Your task to perform on an android device: snooze an email in the gmail app Image 0: 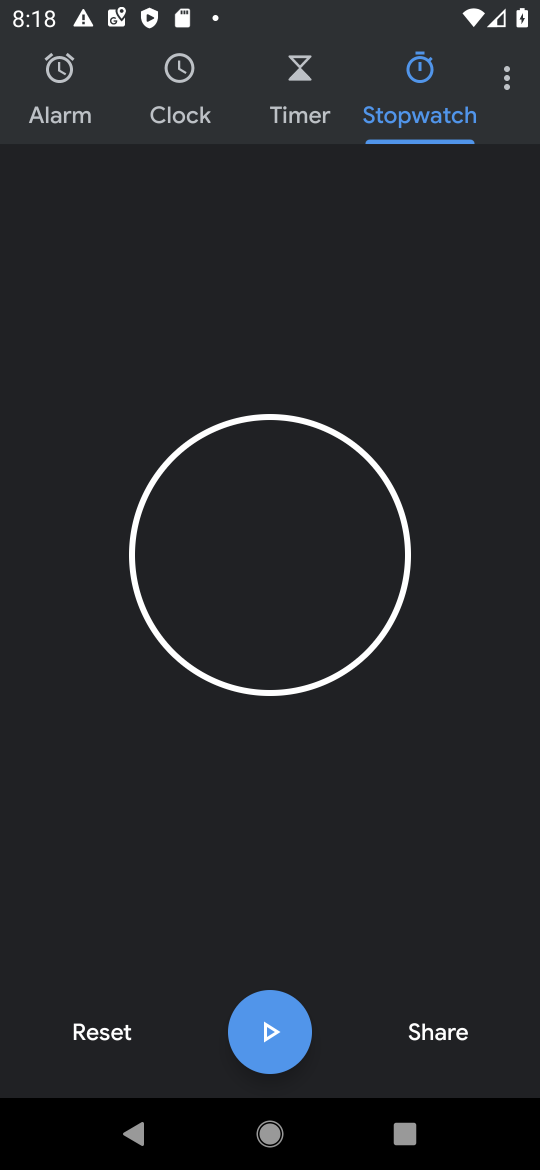
Step 0: press home button
Your task to perform on an android device: snooze an email in the gmail app Image 1: 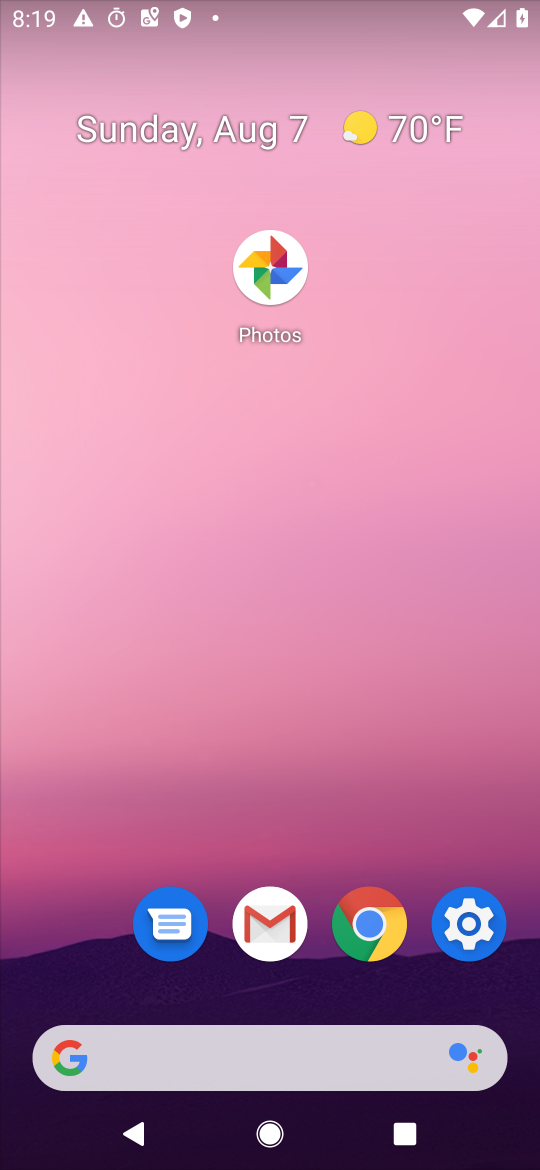
Step 1: drag from (372, 725) to (457, 264)
Your task to perform on an android device: snooze an email in the gmail app Image 2: 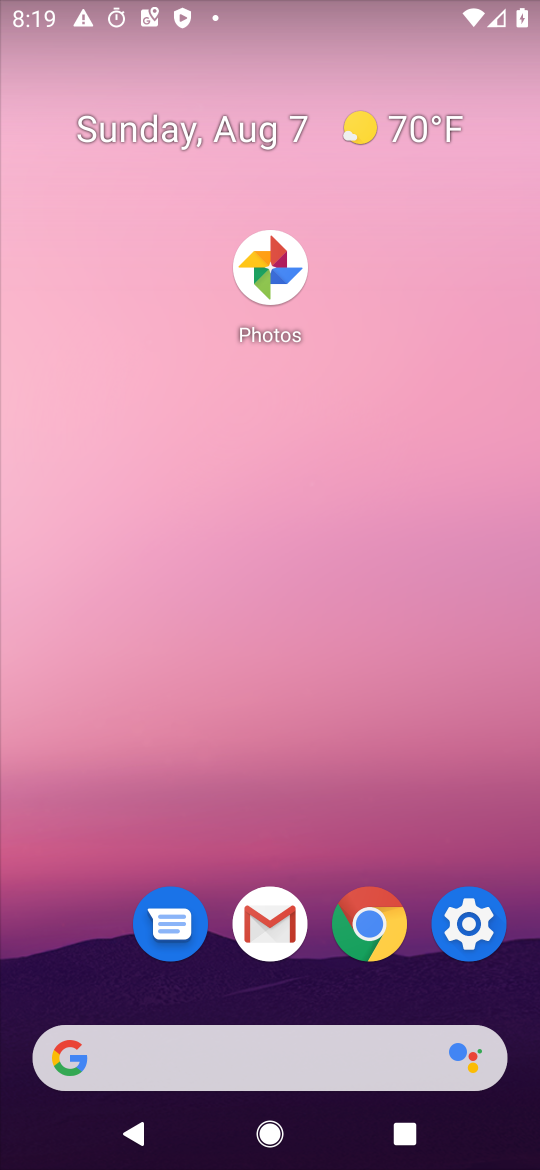
Step 2: click (257, 909)
Your task to perform on an android device: snooze an email in the gmail app Image 3: 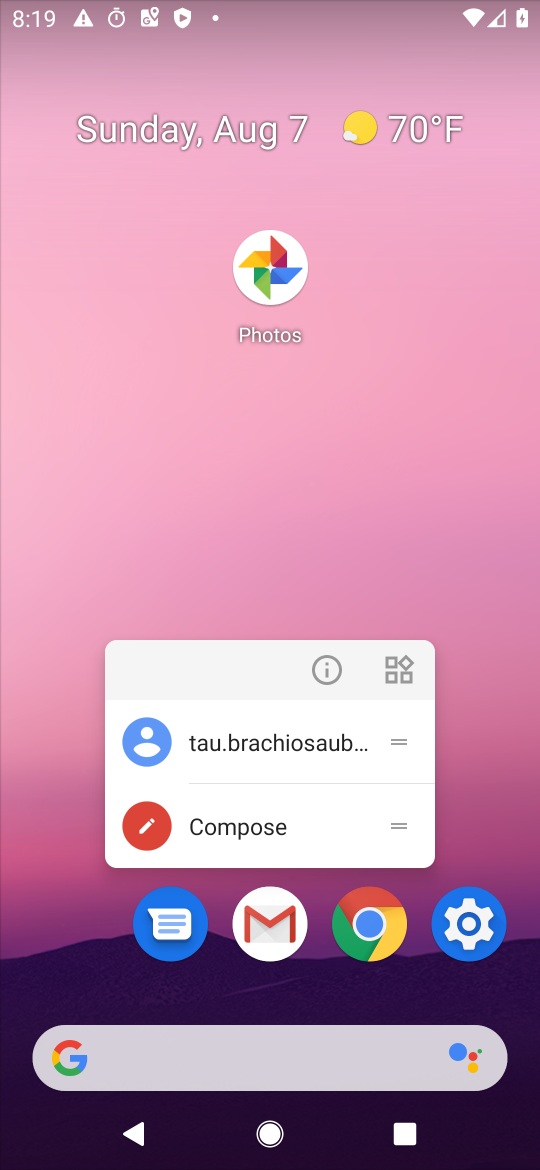
Step 3: click (267, 934)
Your task to perform on an android device: snooze an email in the gmail app Image 4: 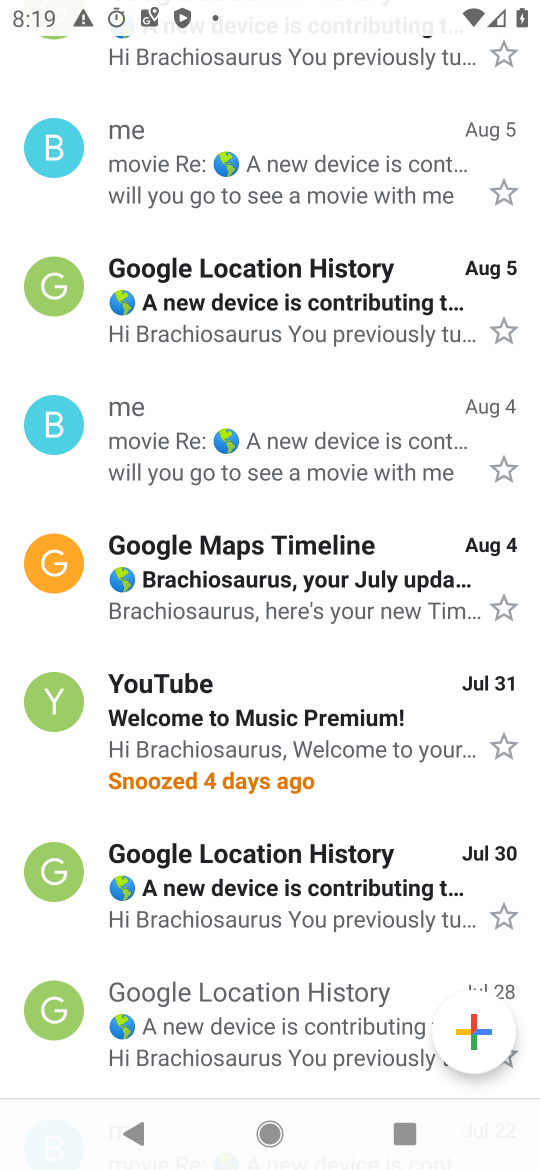
Step 4: drag from (196, 319) to (242, 698)
Your task to perform on an android device: snooze an email in the gmail app Image 5: 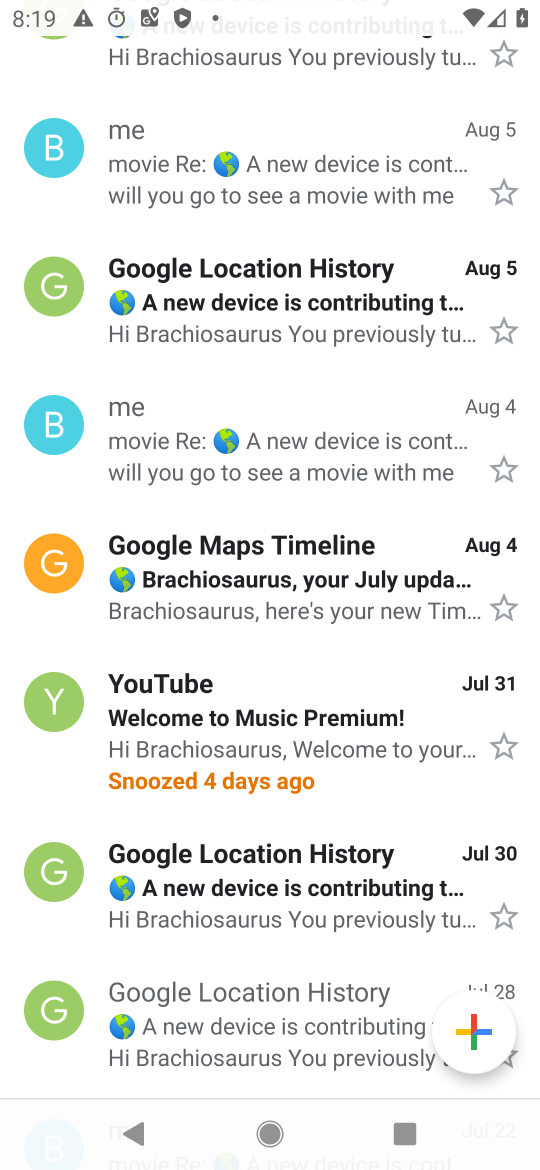
Step 5: drag from (147, 245) to (279, 626)
Your task to perform on an android device: snooze an email in the gmail app Image 6: 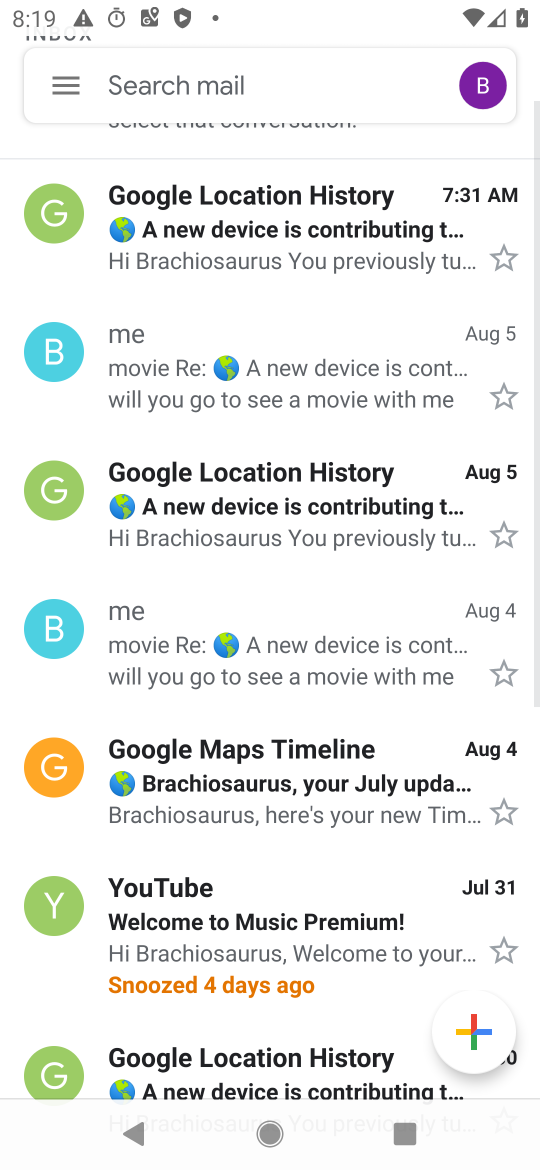
Step 6: click (65, 65)
Your task to perform on an android device: snooze an email in the gmail app Image 7: 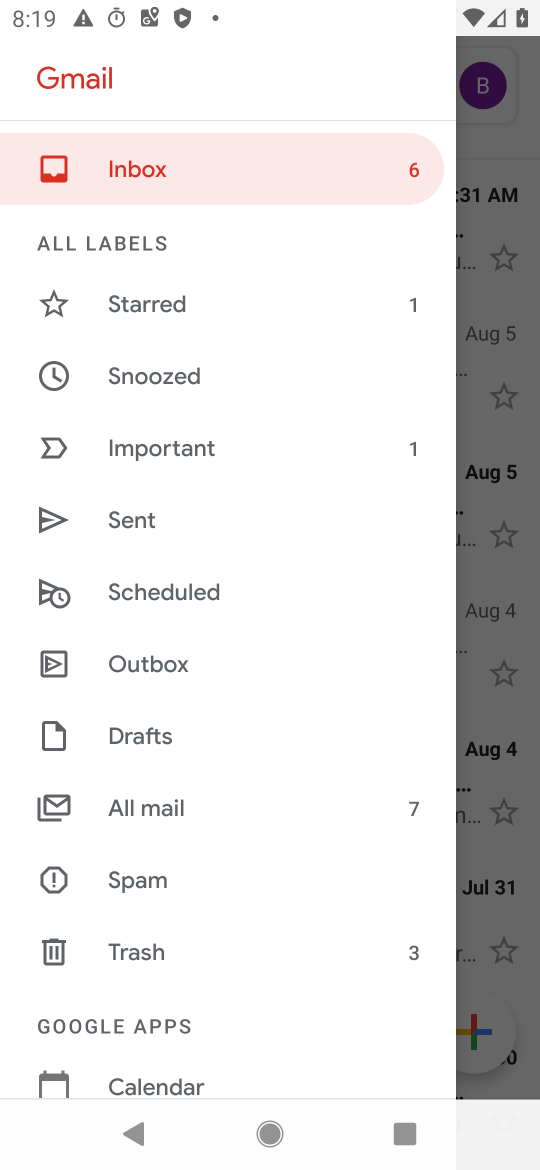
Step 7: click (508, 407)
Your task to perform on an android device: snooze an email in the gmail app Image 8: 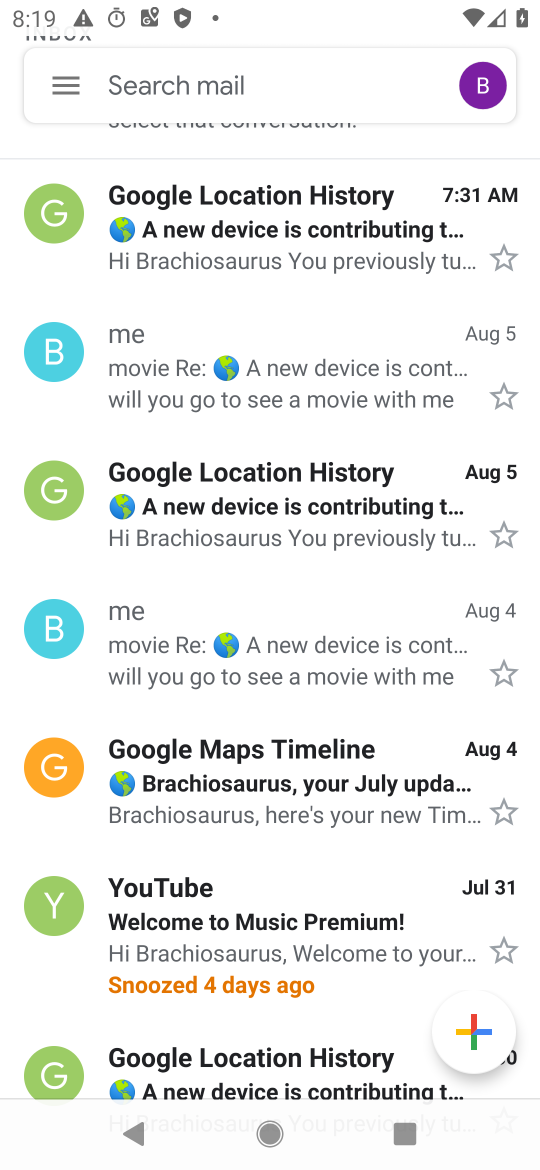
Step 8: click (264, 259)
Your task to perform on an android device: snooze an email in the gmail app Image 9: 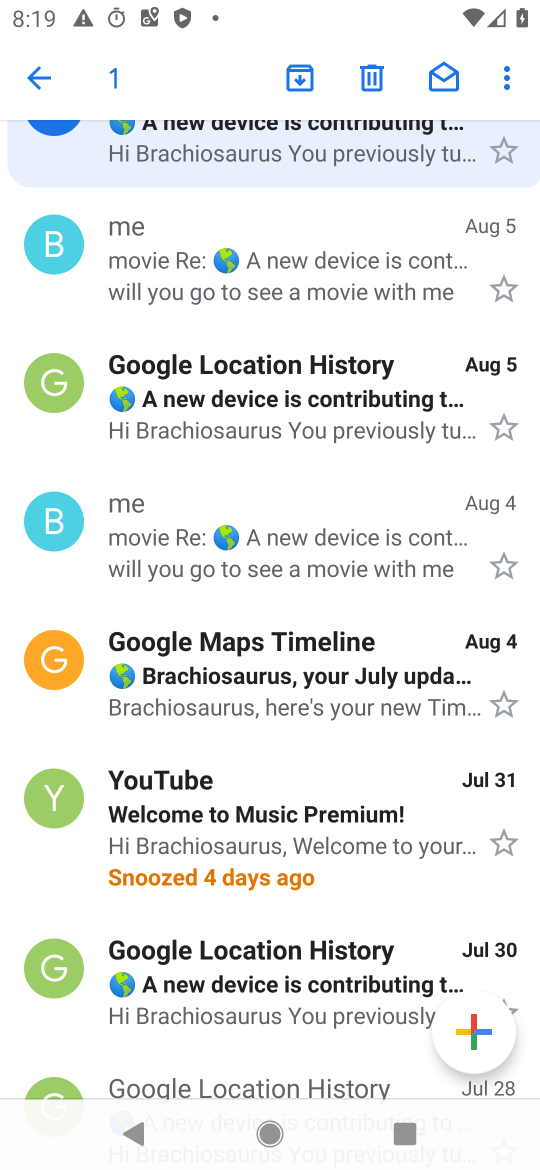
Step 9: click (37, 67)
Your task to perform on an android device: snooze an email in the gmail app Image 10: 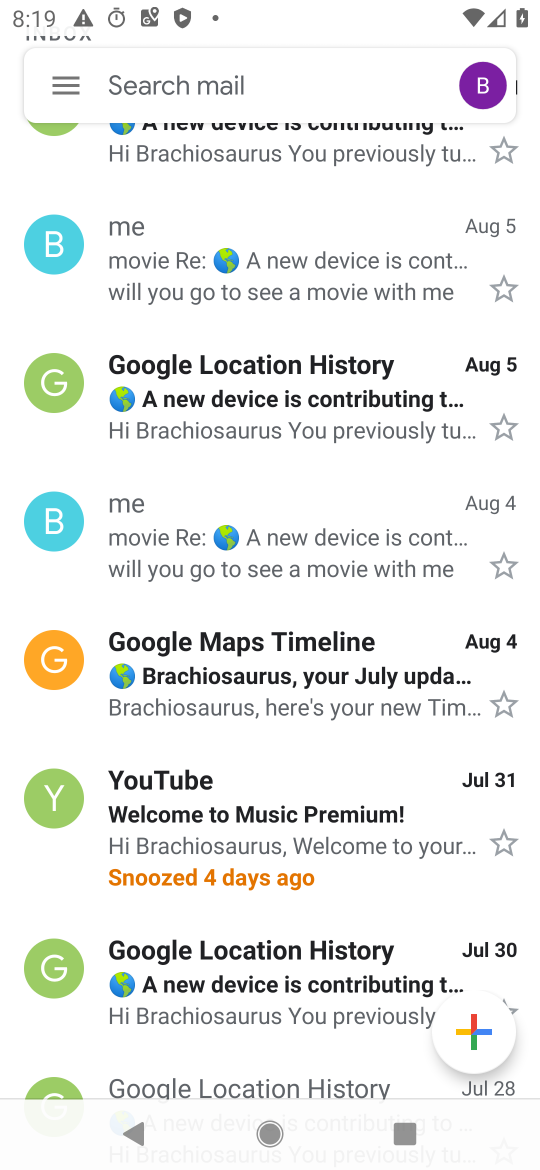
Step 10: click (239, 185)
Your task to perform on an android device: snooze an email in the gmail app Image 11: 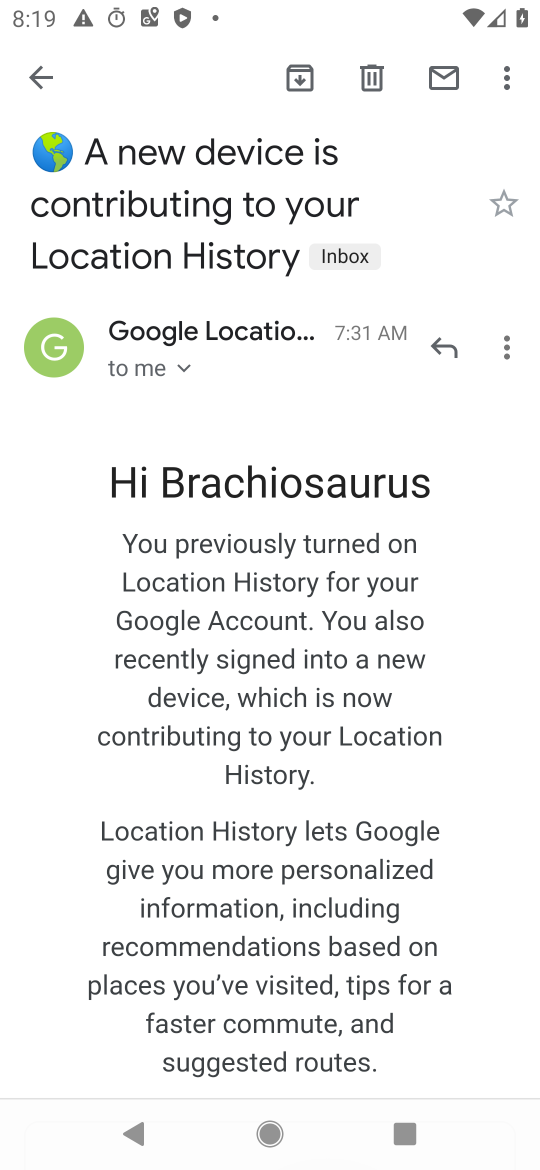
Step 11: click (500, 88)
Your task to perform on an android device: snooze an email in the gmail app Image 12: 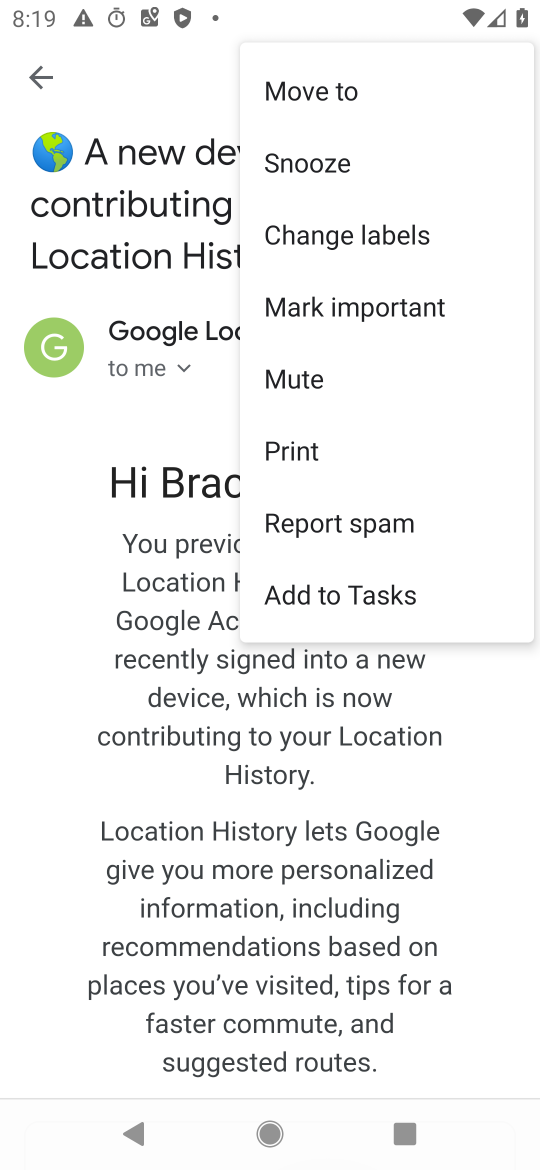
Step 12: click (352, 156)
Your task to perform on an android device: snooze an email in the gmail app Image 13: 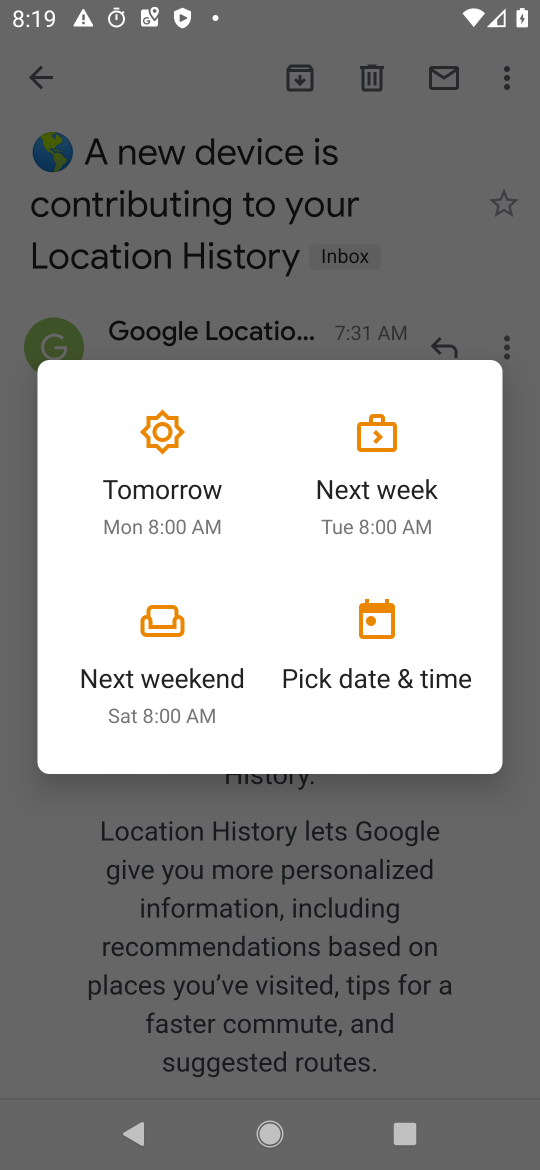
Step 13: click (187, 485)
Your task to perform on an android device: snooze an email in the gmail app Image 14: 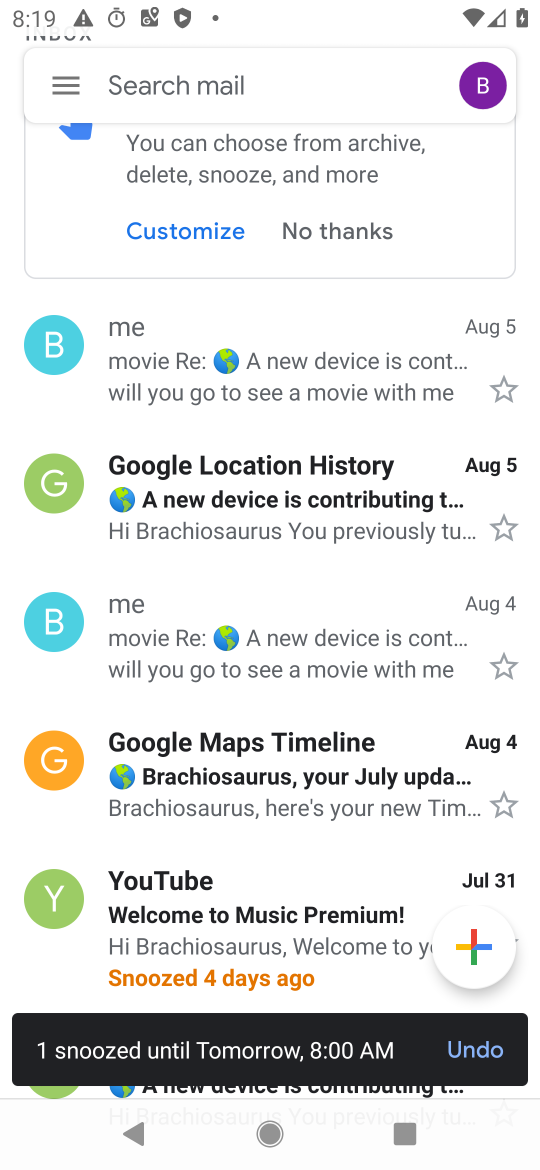
Step 14: task complete